Your task to perform on an android device: open sync settings in chrome Image 0: 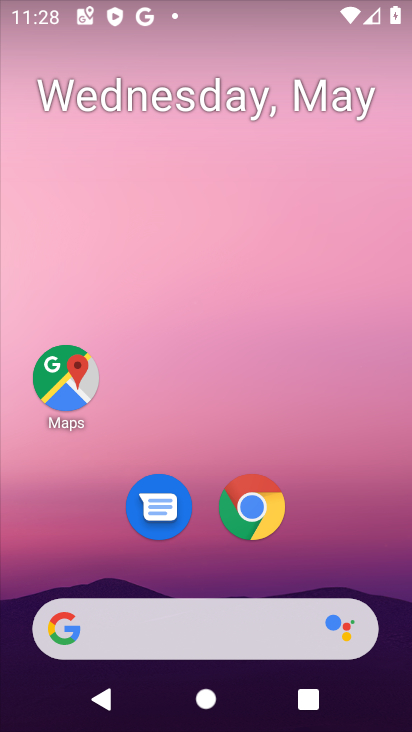
Step 0: press home button
Your task to perform on an android device: open sync settings in chrome Image 1: 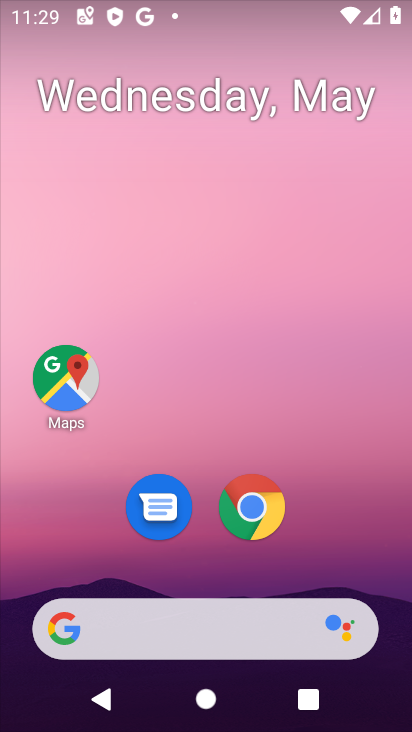
Step 1: click (242, 501)
Your task to perform on an android device: open sync settings in chrome Image 2: 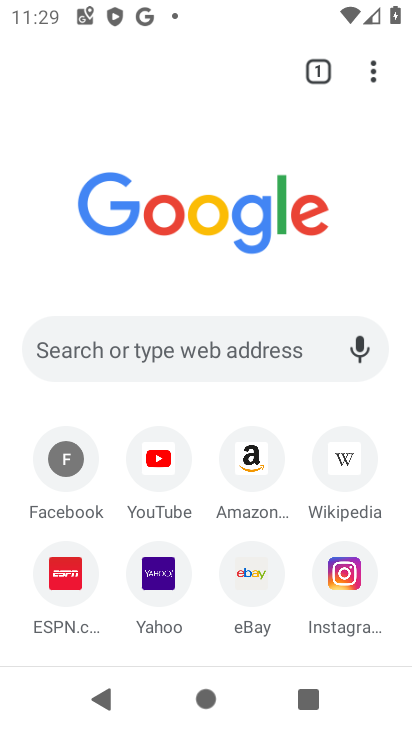
Step 2: drag from (375, 62) to (134, 499)
Your task to perform on an android device: open sync settings in chrome Image 3: 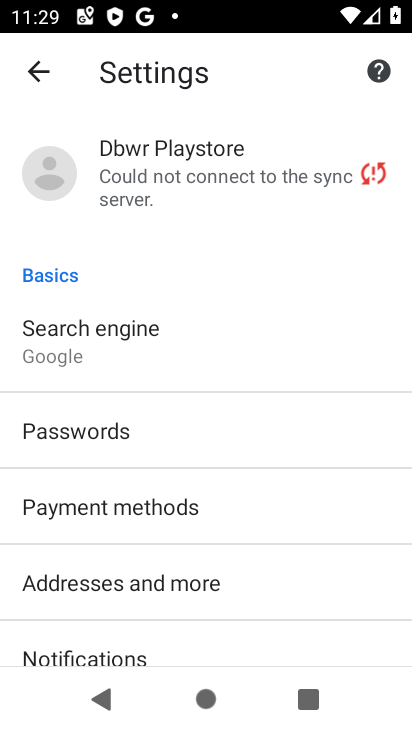
Step 3: click (243, 141)
Your task to perform on an android device: open sync settings in chrome Image 4: 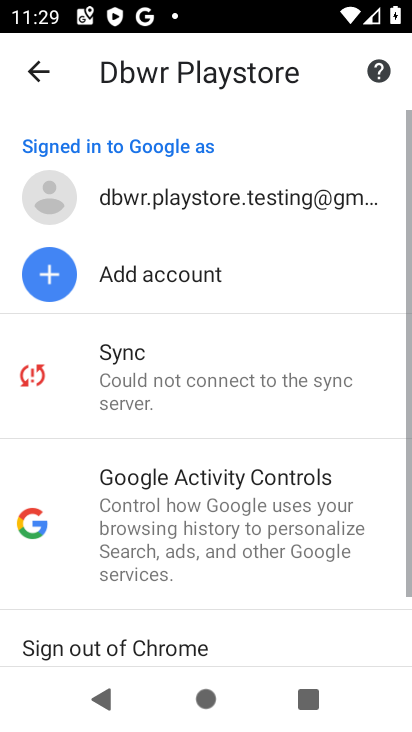
Step 4: click (186, 391)
Your task to perform on an android device: open sync settings in chrome Image 5: 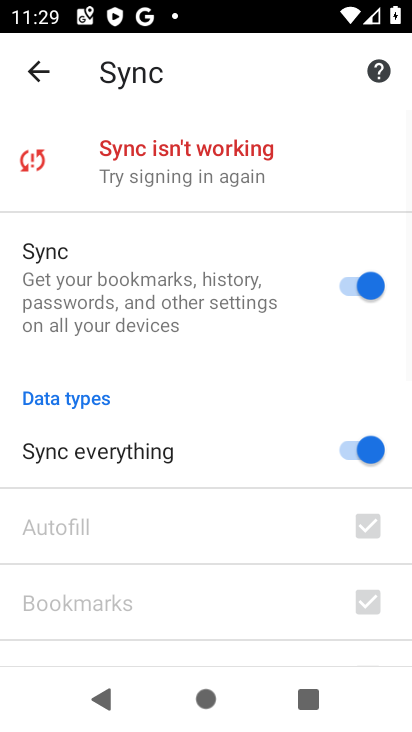
Step 5: task complete